Your task to perform on an android device: Set the phone to "Do not disturb". Image 0: 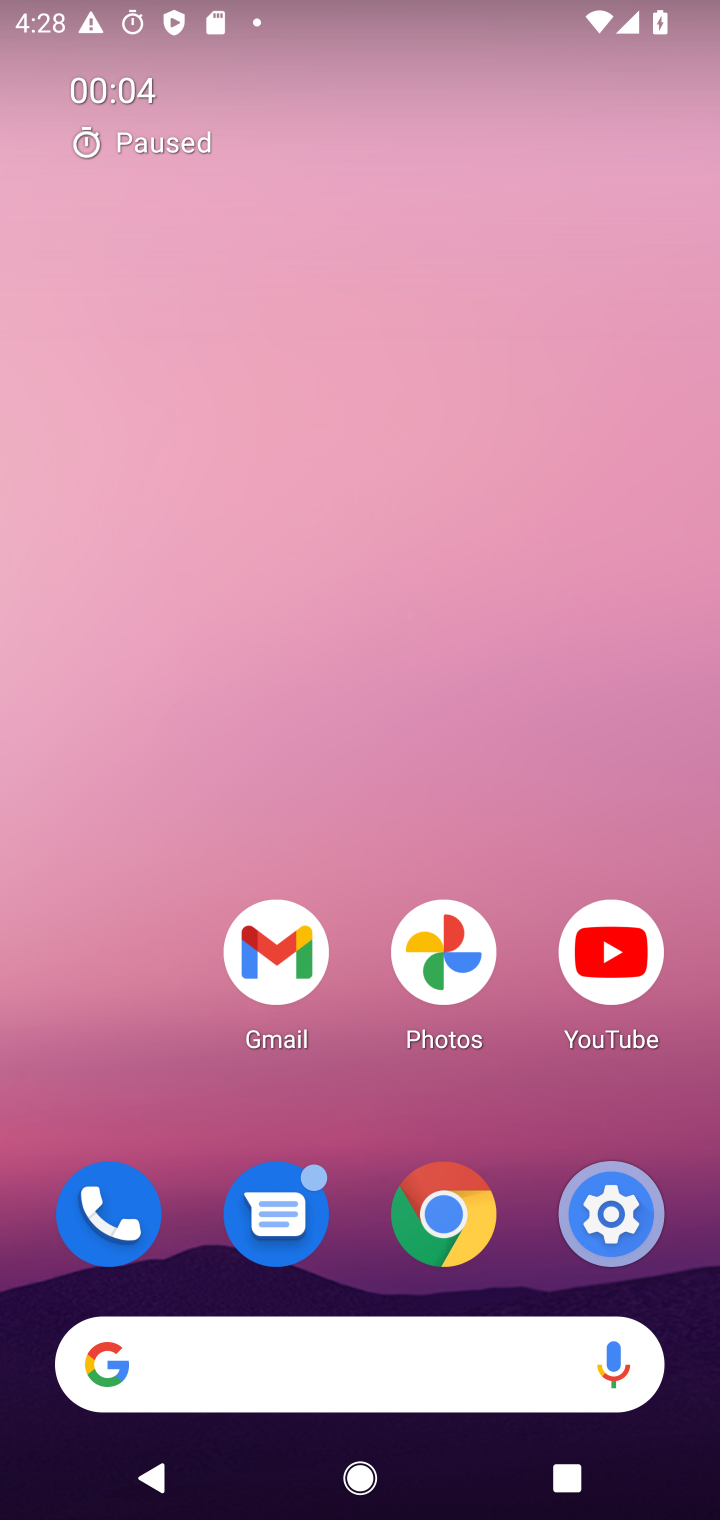
Step 0: click (613, 1220)
Your task to perform on an android device: Set the phone to "Do not disturb". Image 1: 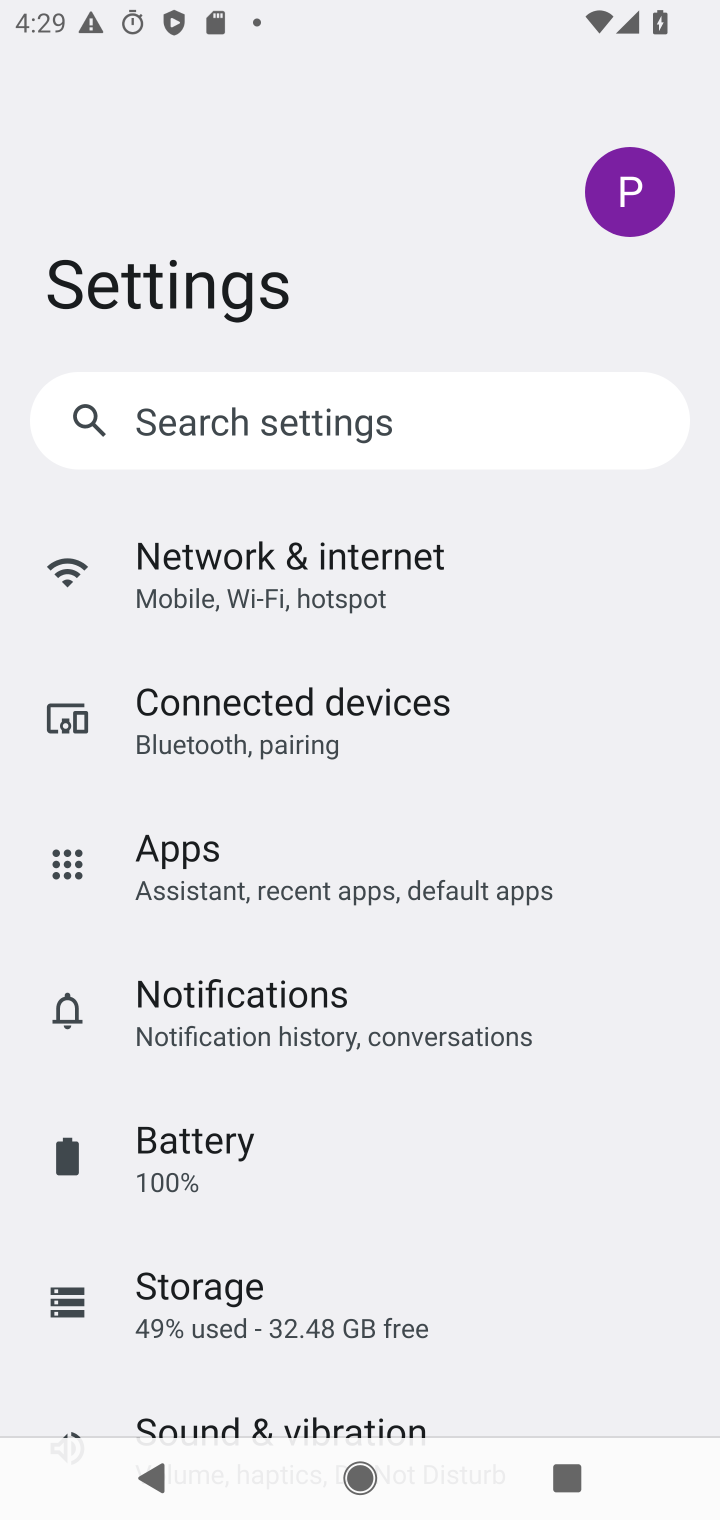
Step 1: drag from (315, 1267) to (371, 753)
Your task to perform on an android device: Set the phone to "Do not disturb". Image 2: 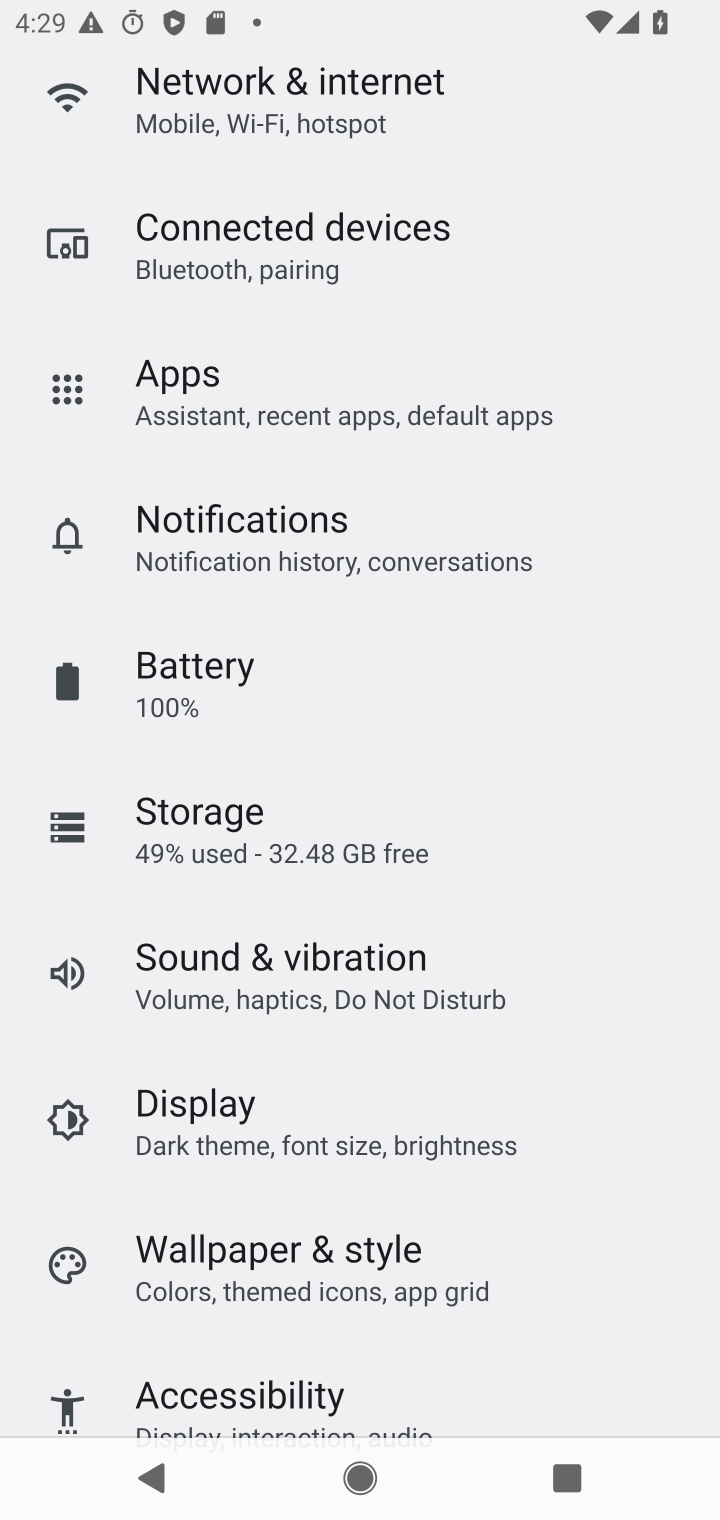
Step 2: click (180, 994)
Your task to perform on an android device: Set the phone to "Do not disturb". Image 3: 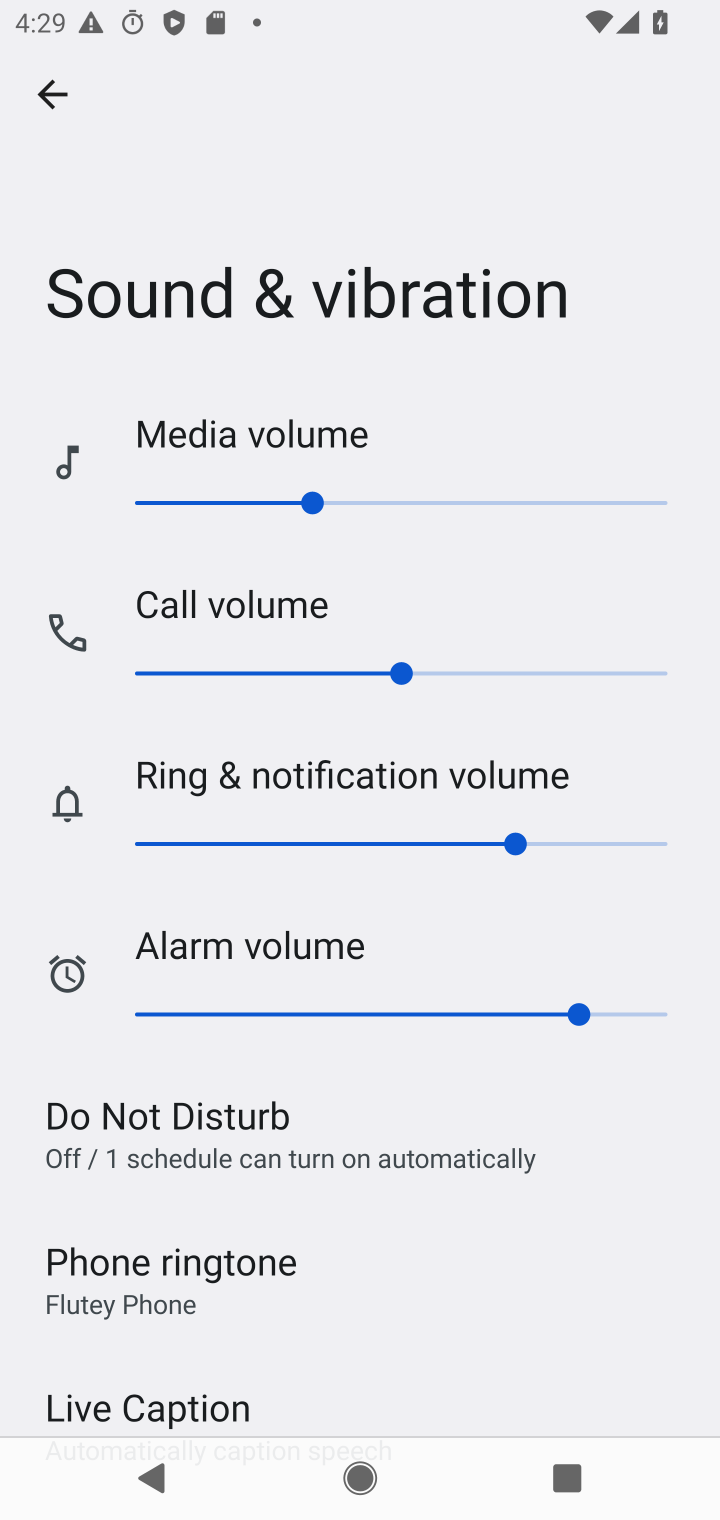
Step 3: click (142, 1135)
Your task to perform on an android device: Set the phone to "Do not disturb". Image 4: 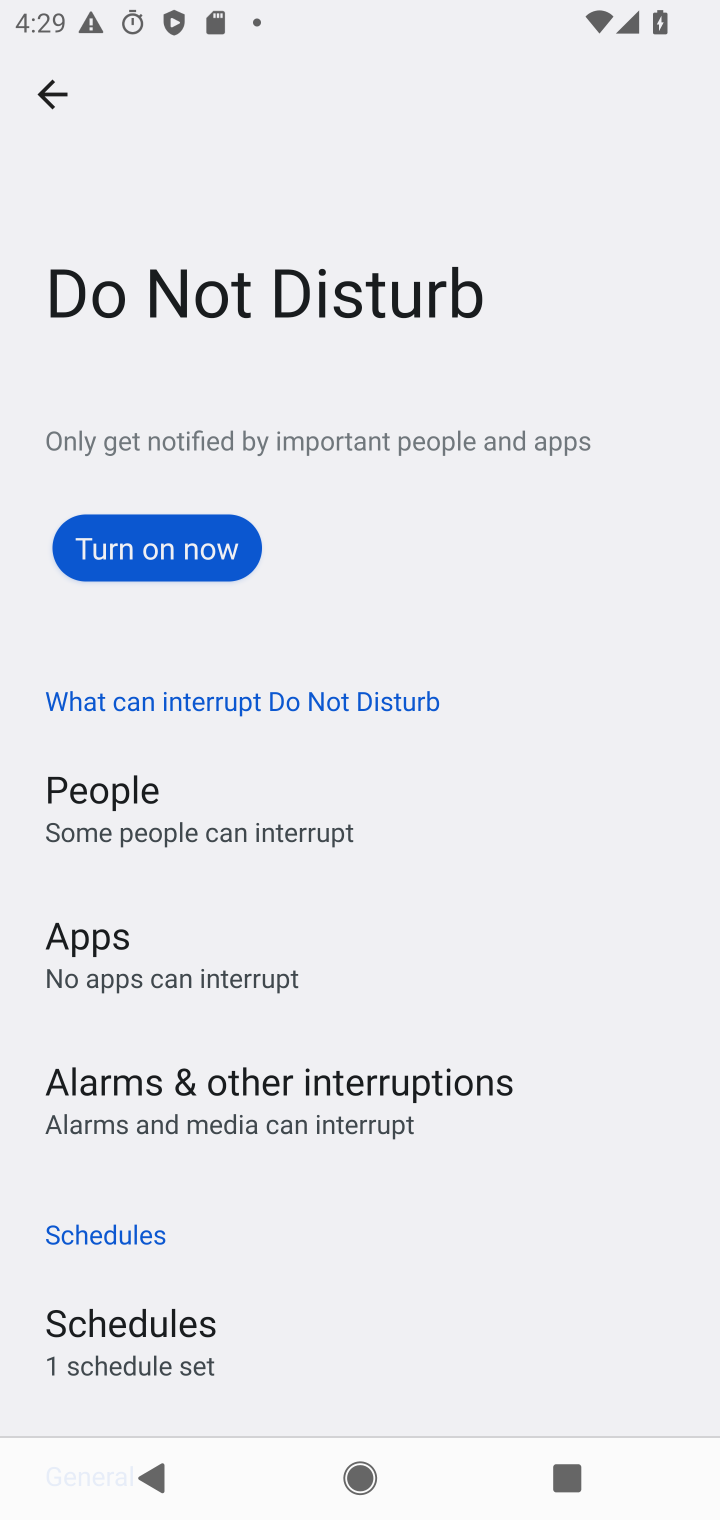
Step 4: click (136, 554)
Your task to perform on an android device: Set the phone to "Do not disturb". Image 5: 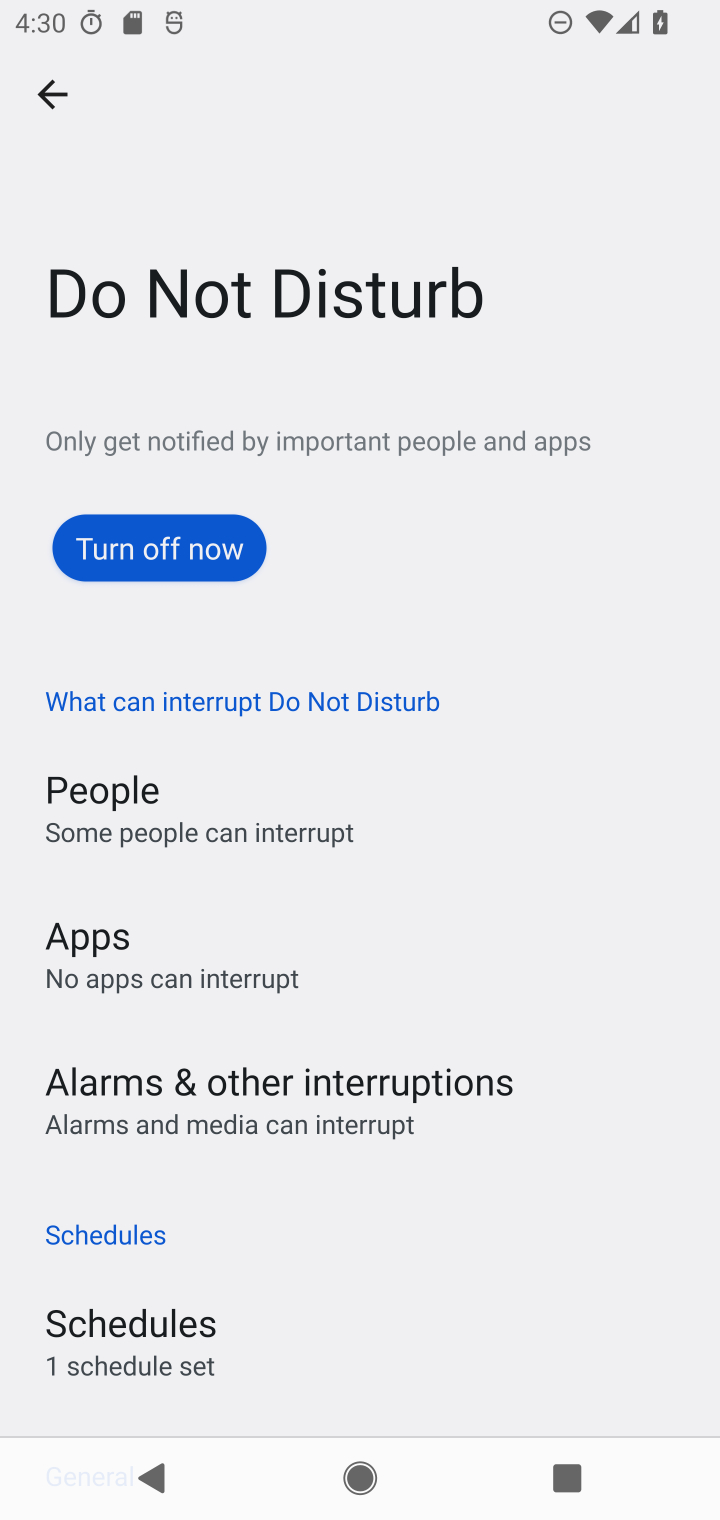
Step 5: click (167, 572)
Your task to perform on an android device: Set the phone to "Do not disturb". Image 6: 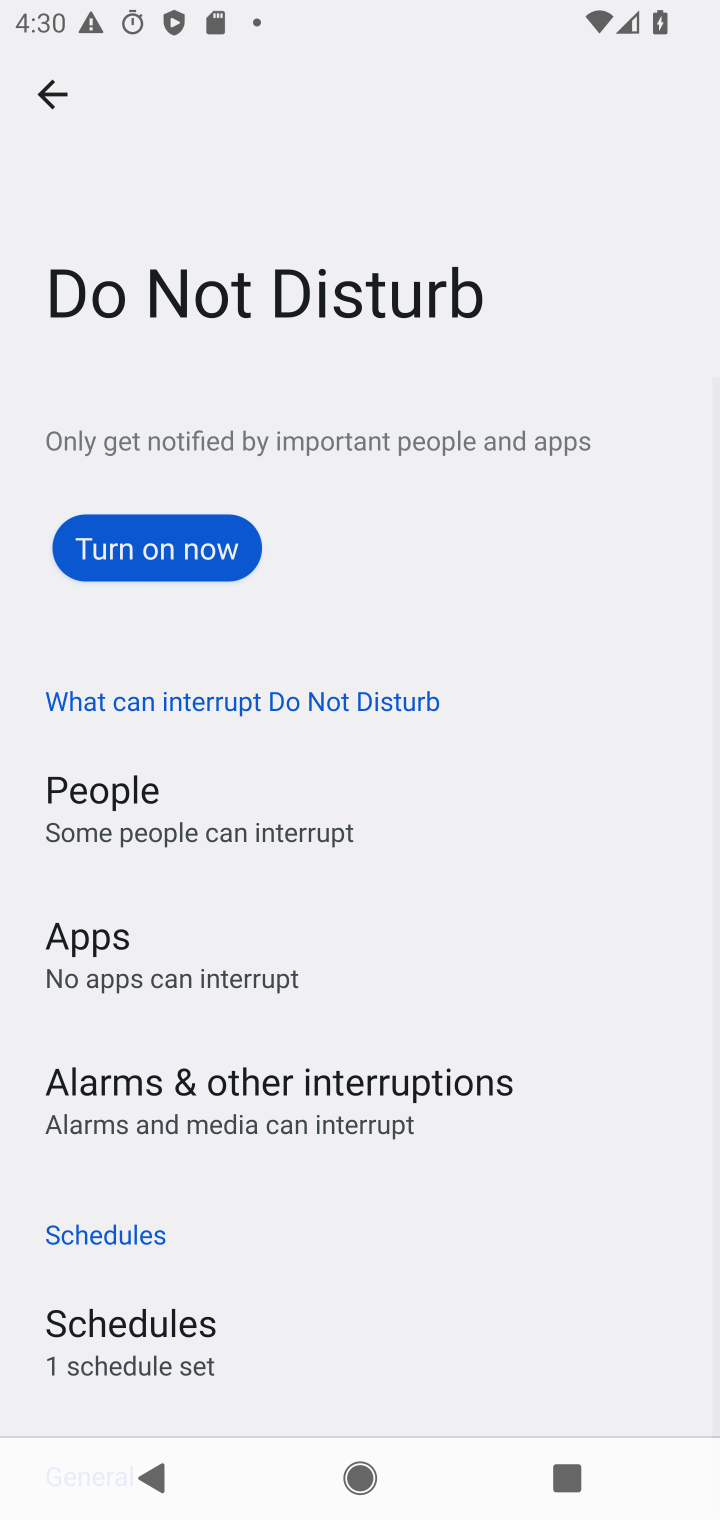
Step 6: click (167, 572)
Your task to perform on an android device: Set the phone to "Do not disturb". Image 7: 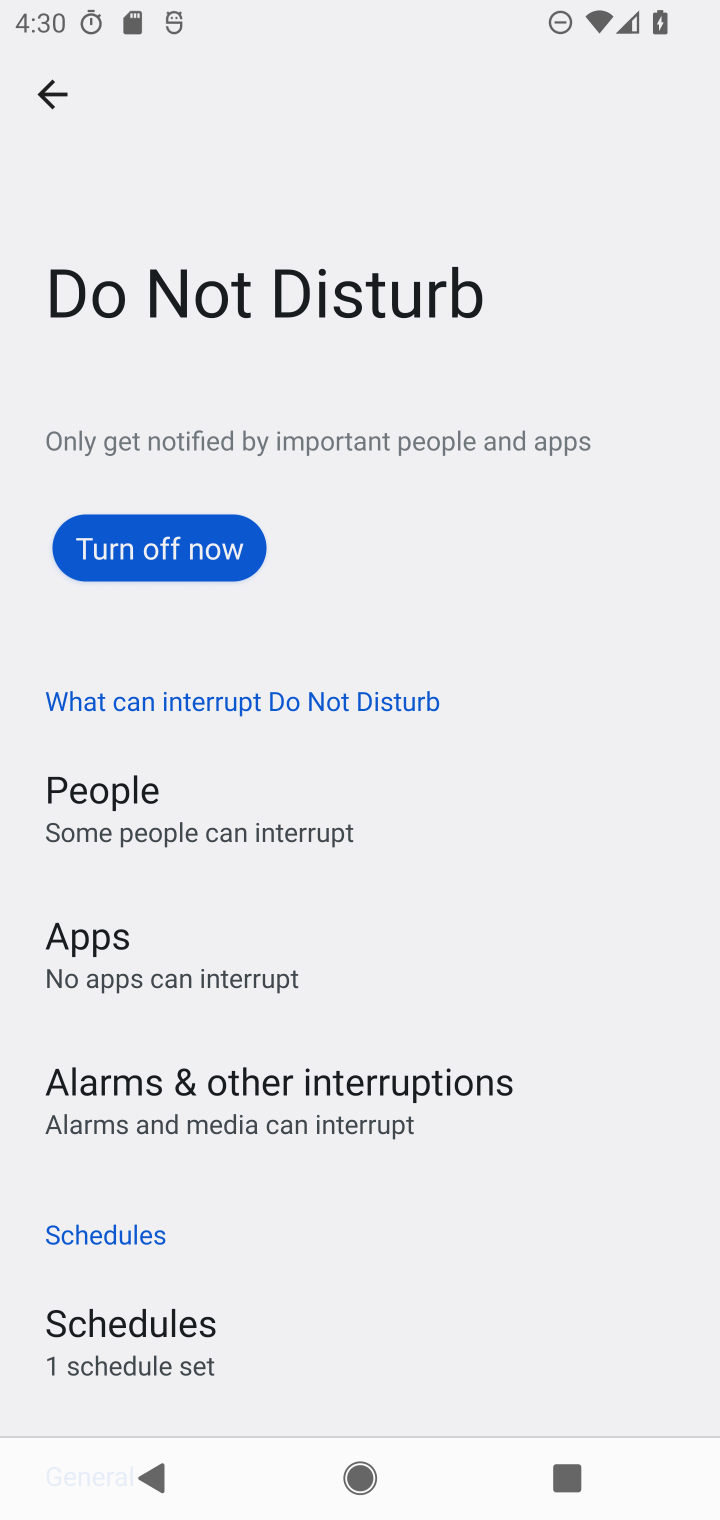
Step 7: task complete